Your task to perform on an android device: check data usage Image 0: 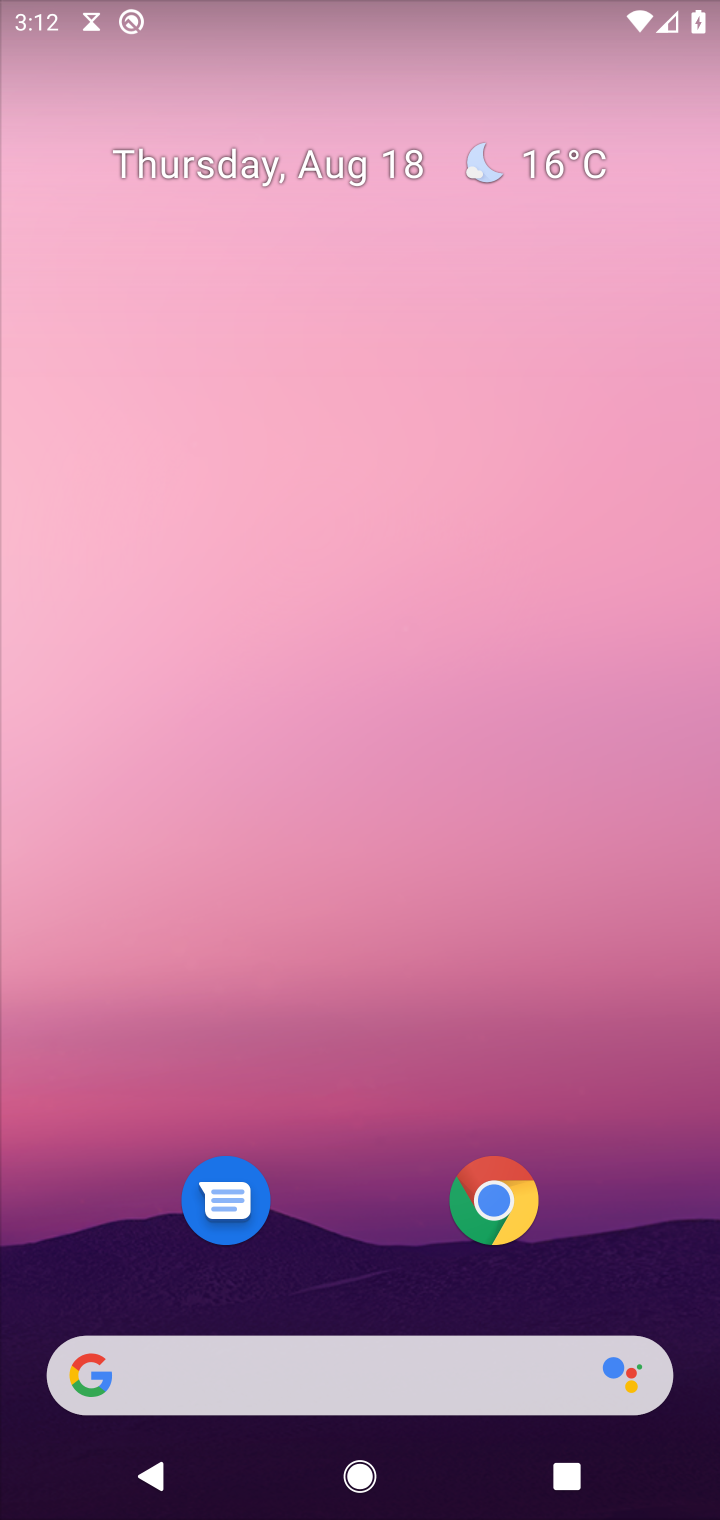
Step 0: drag from (439, 773) to (435, 7)
Your task to perform on an android device: check data usage Image 1: 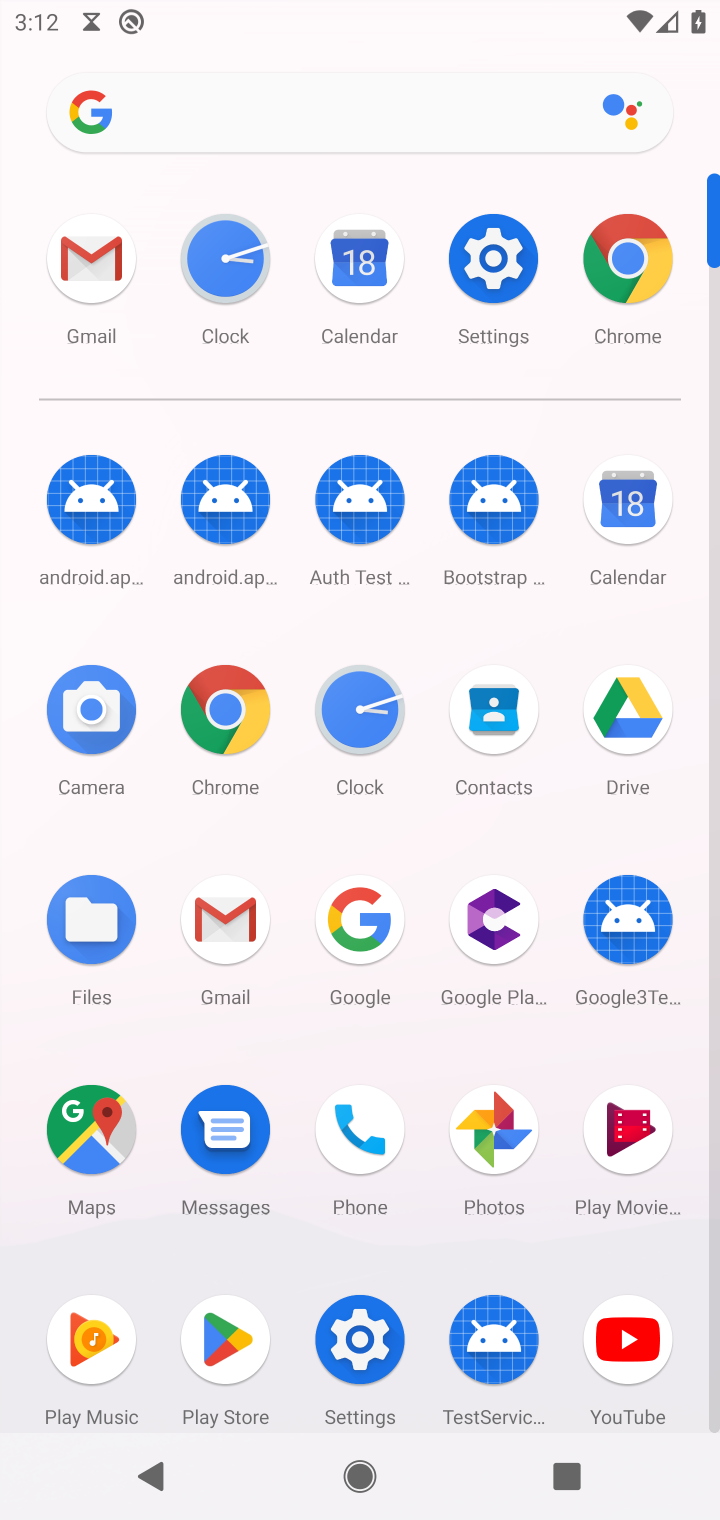
Step 1: drag from (382, 348) to (506, 1495)
Your task to perform on an android device: check data usage Image 2: 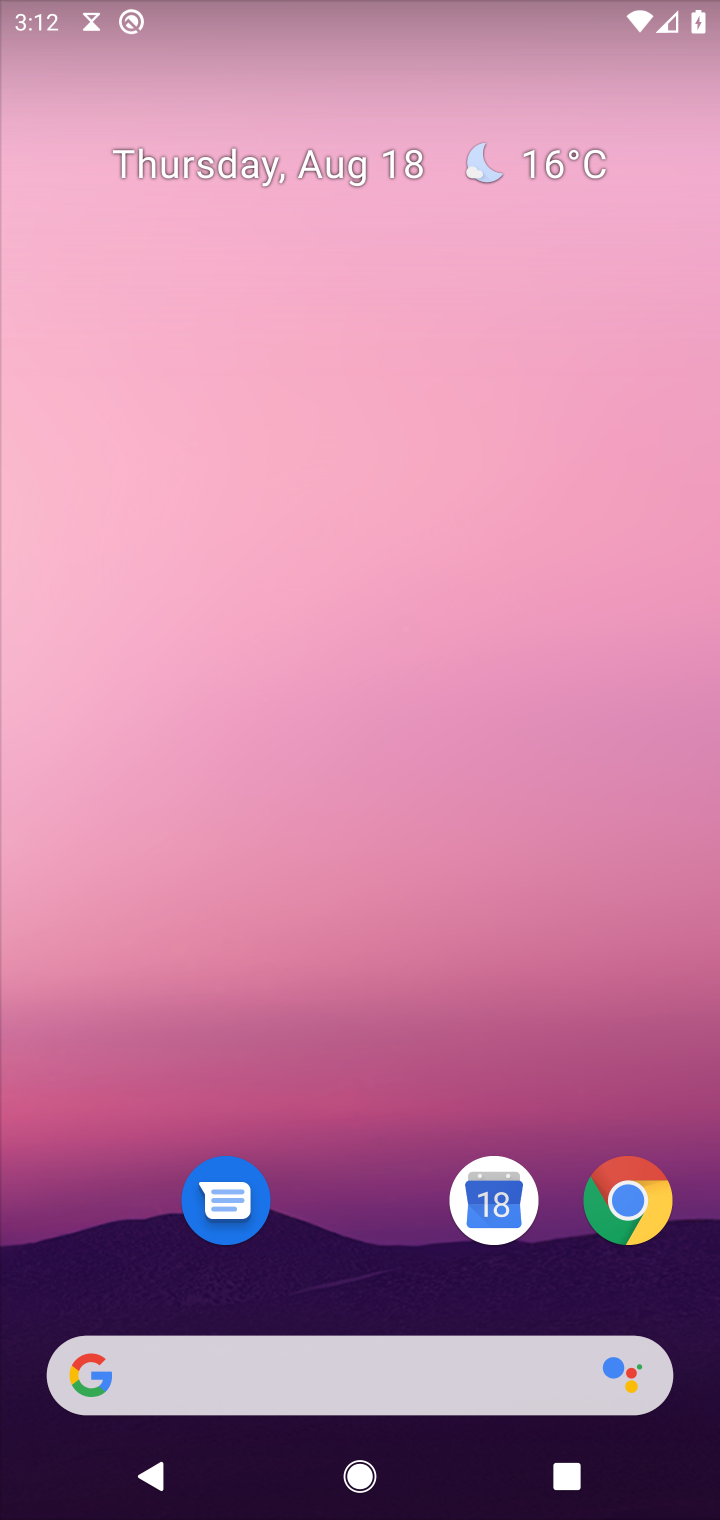
Step 2: drag from (336, 11) to (514, 999)
Your task to perform on an android device: check data usage Image 3: 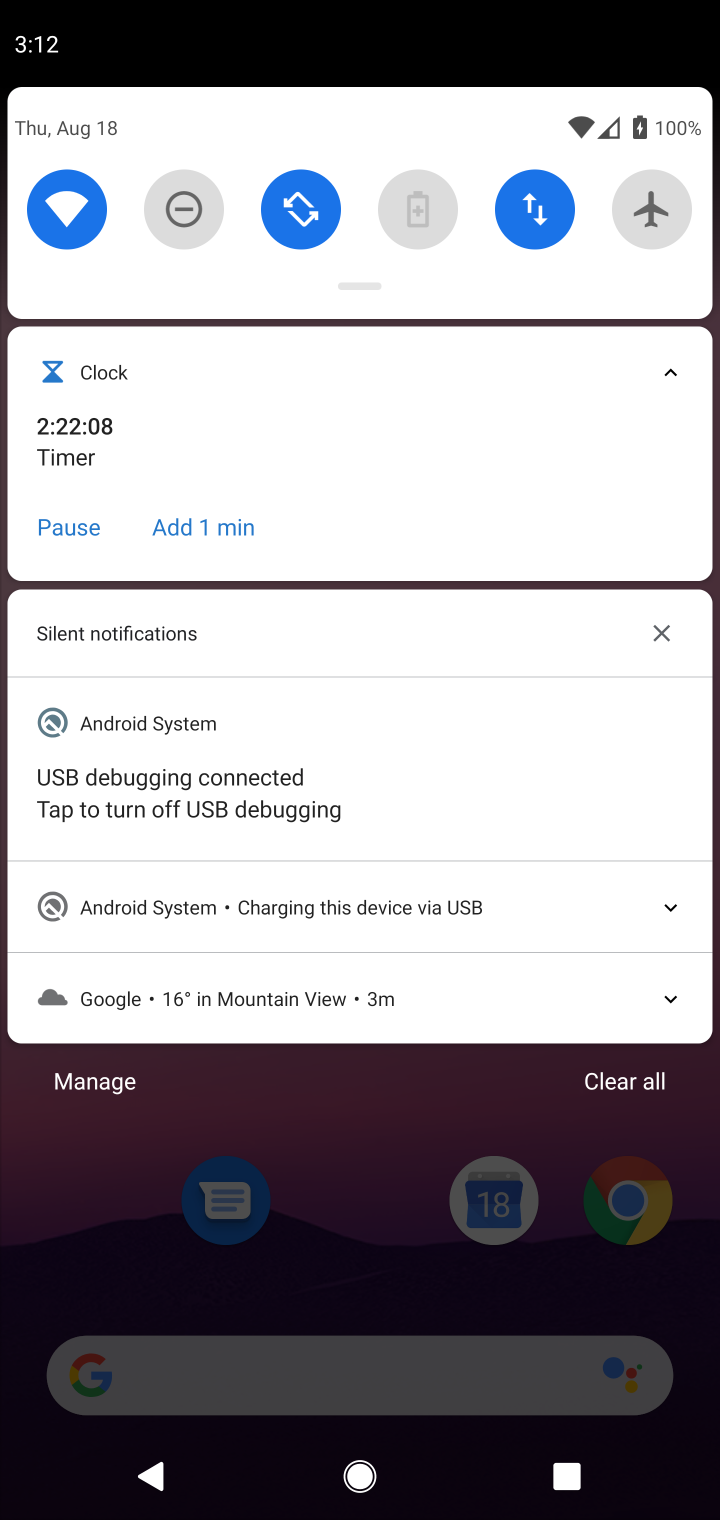
Step 3: click (516, 180)
Your task to perform on an android device: check data usage Image 4: 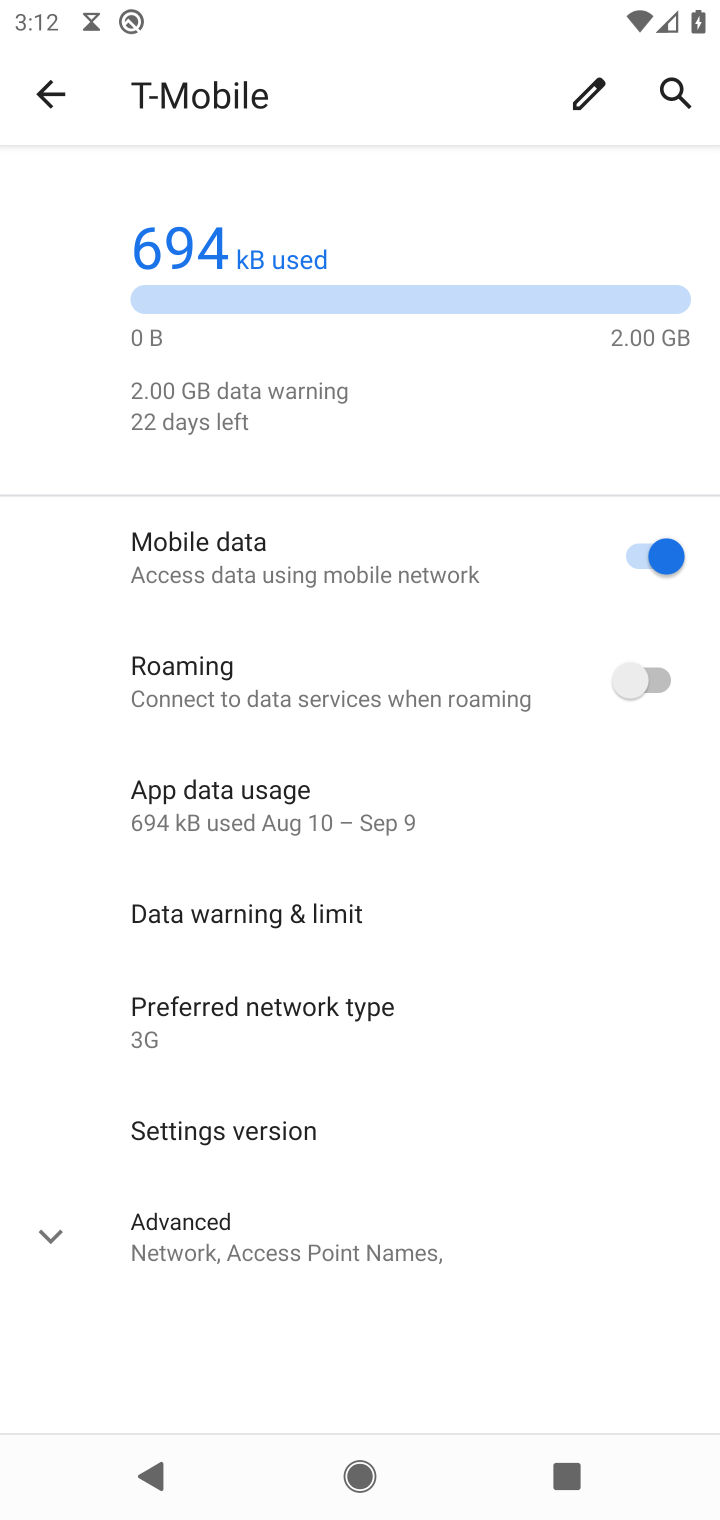
Step 4: task complete